Your task to perform on an android device: Open calendar and show me the third week of next month Image 0: 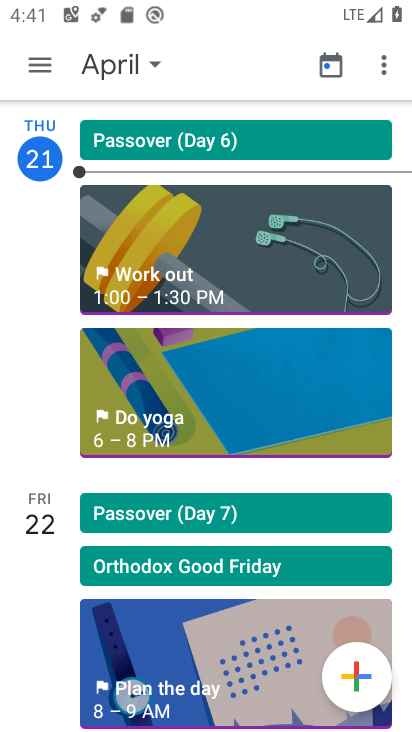
Step 0: click (116, 69)
Your task to perform on an android device: Open calendar and show me the third week of next month Image 1: 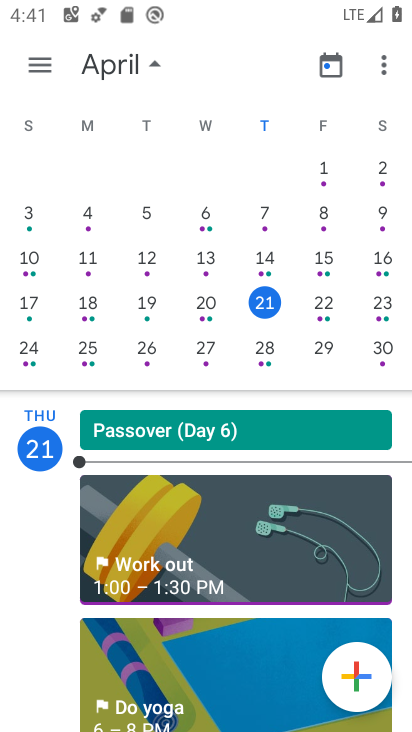
Step 1: drag from (365, 291) to (0, 272)
Your task to perform on an android device: Open calendar and show me the third week of next month Image 2: 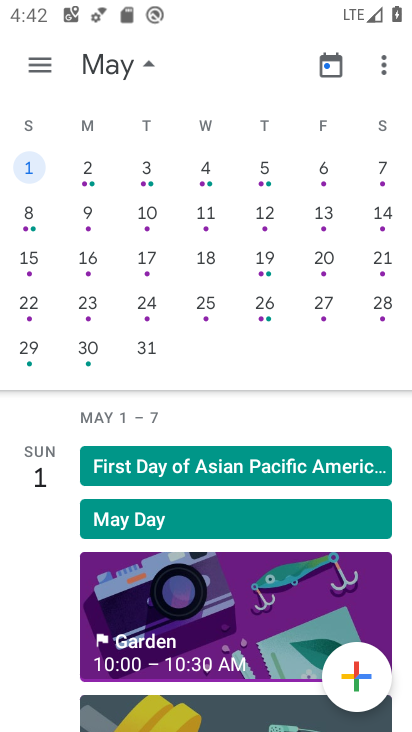
Step 2: click (28, 255)
Your task to perform on an android device: Open calendar and show me the third week of next month Image 3: 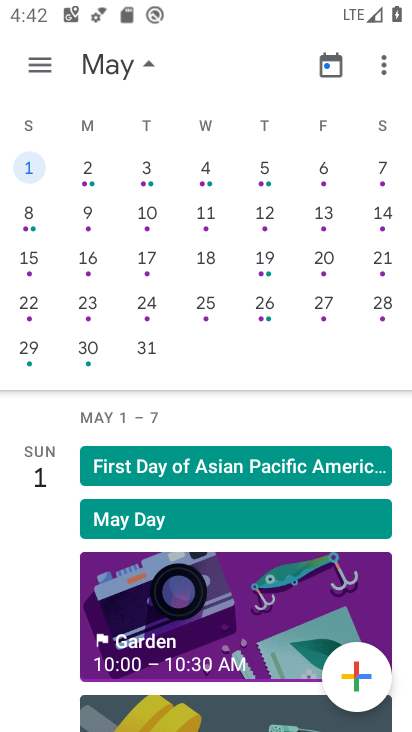
Step 3: click (29, 260)
Your task to perform on an android device: Open calendar and show me the third week of next month Image 4: 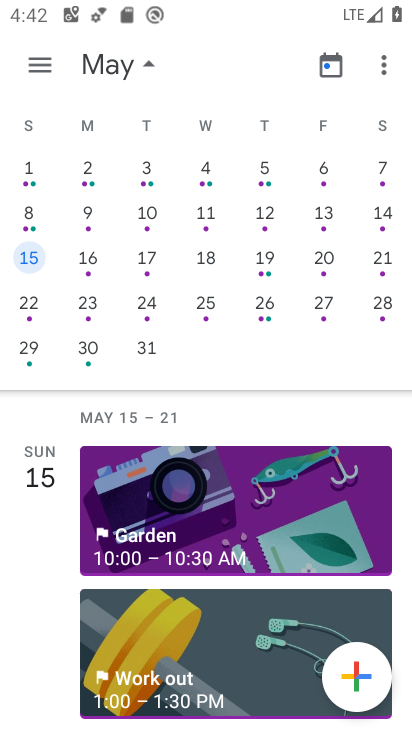
Step 4: click (35, 66)
Your task to perform on an android device: Open calendar and show me the third week of next month Image 5: 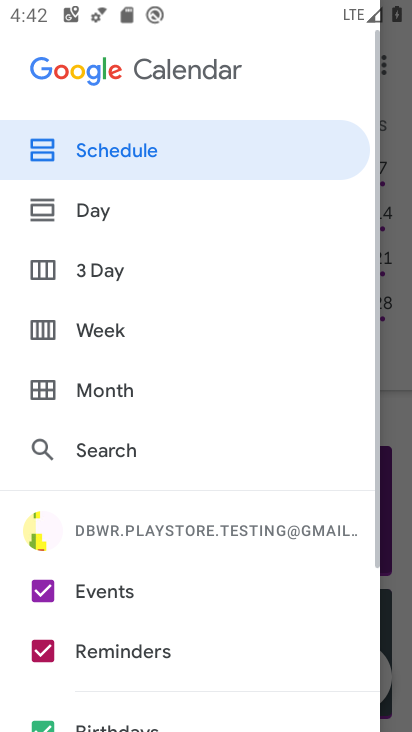
Step 5: click (145, 337)
Your task to perform on an android device: Open calendar and show me the third week of next month Image 6: 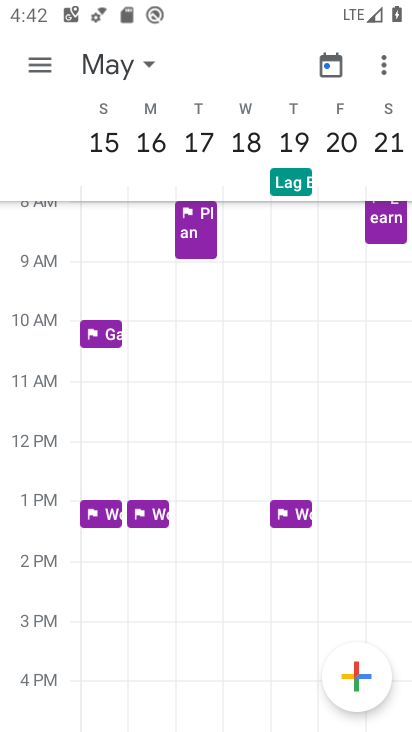
Step 6: task complete